Your task to perform on an android device: turn off notifications settings in the gmail app Image 0: 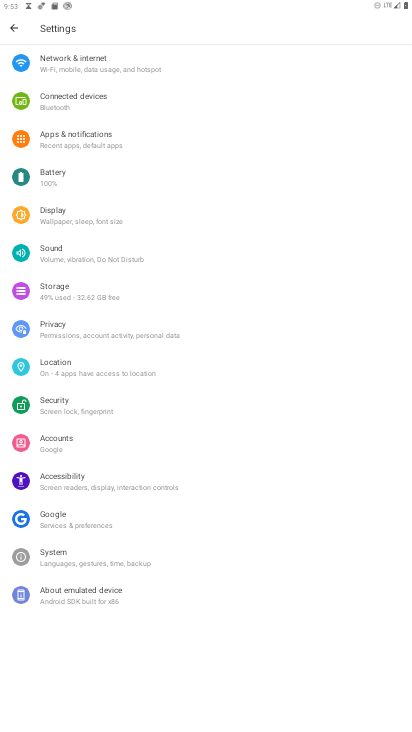
Step 0: press back button
Your task to perform on an android device: turn off notifications settings in the gmail app Image 1: 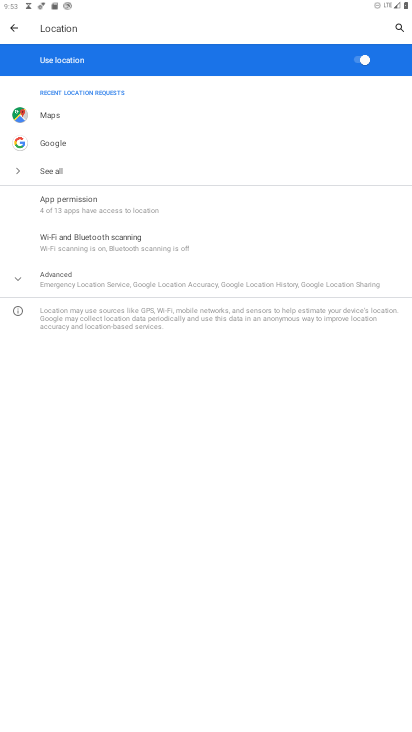
Step 1: press home button
Your task to perform on an android device: turn off notifications settings in the gmail app Image 2: 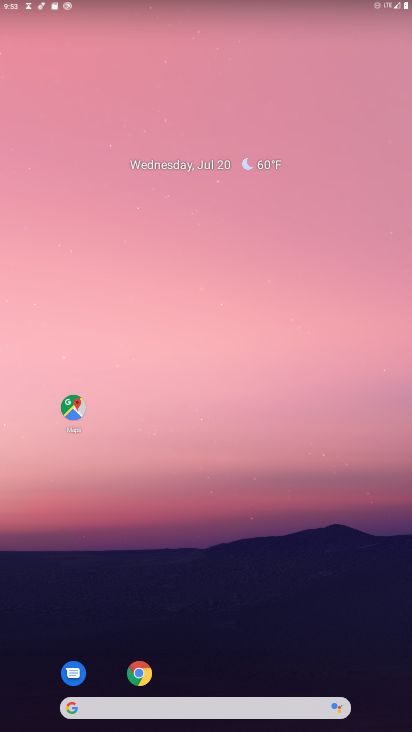
Step 2: drag from (188, 625) to (213, 19)
Your task to perform on an android device: turn off notifications settings in the gmail app Image 3: 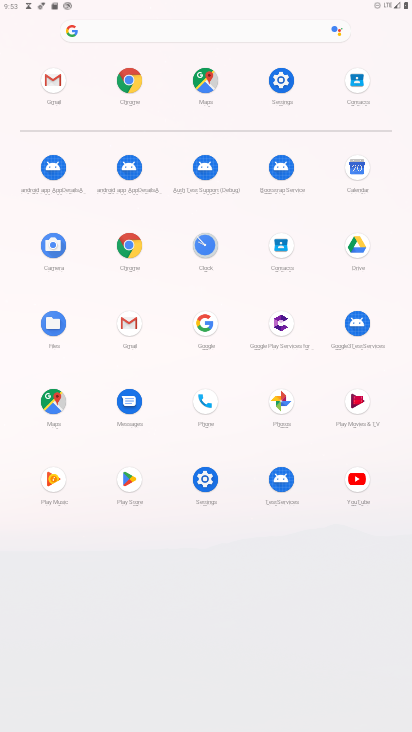
Step 3: click (51, 90)
Your task to perform on an android device: turn off notifications settings in the gmail app Image 4: 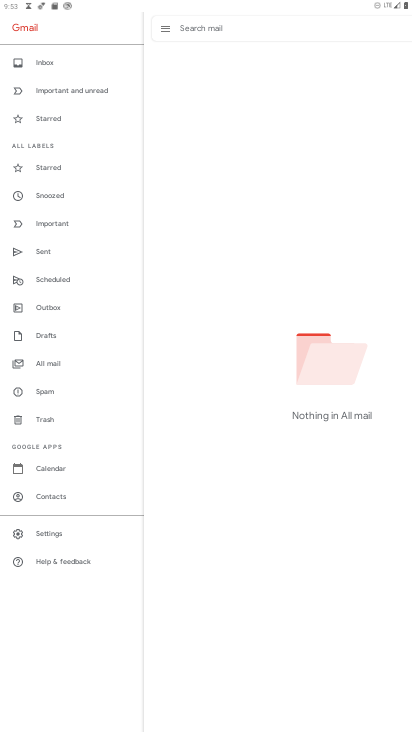
Step 4: click (45, 534)
Your task to perform on an android device: turn off notifications settings in the gmail app Image 5: 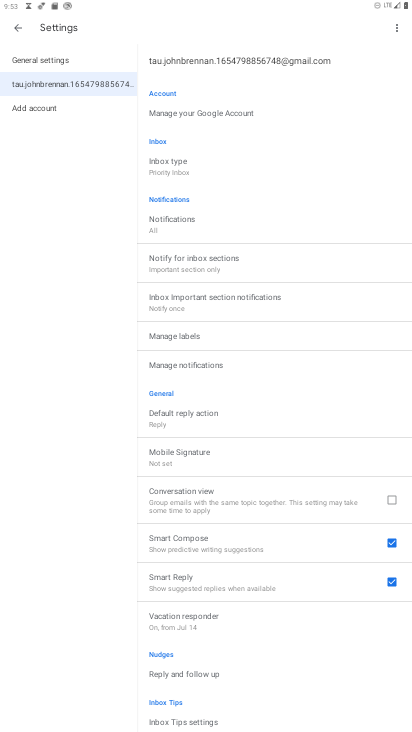
Step 5: click (185, 374)
Your task to perform on an android device: turn off notifications settings in the gmail app Image 6: 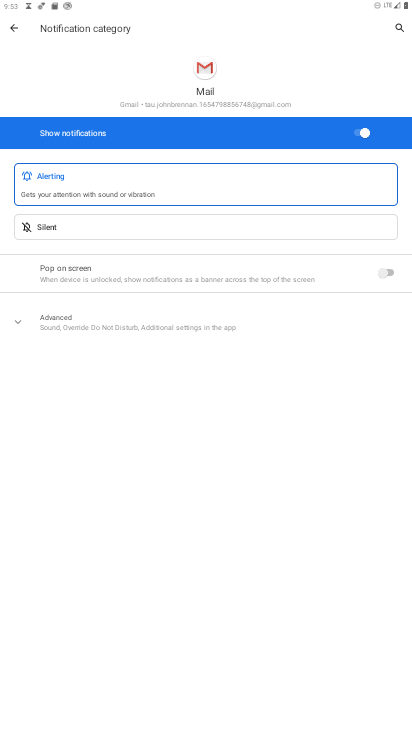
Step 6: click (353, 135)
Your task to perform on an android device: turn off notifications settings in the gmail app Image 7: 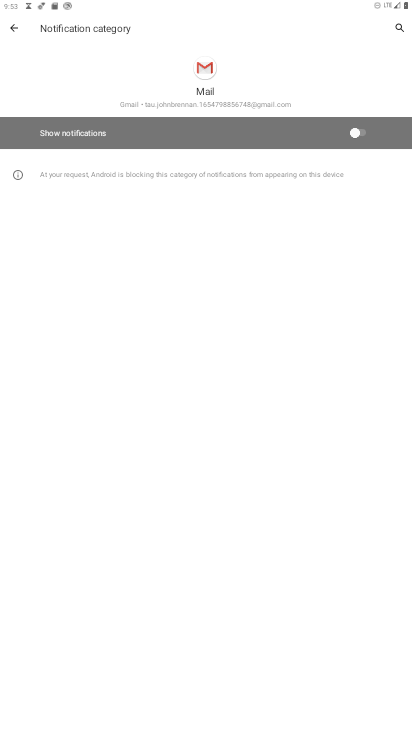
Step 7: task complete